Your task to perform on an android device: Open Android settings Image 0: 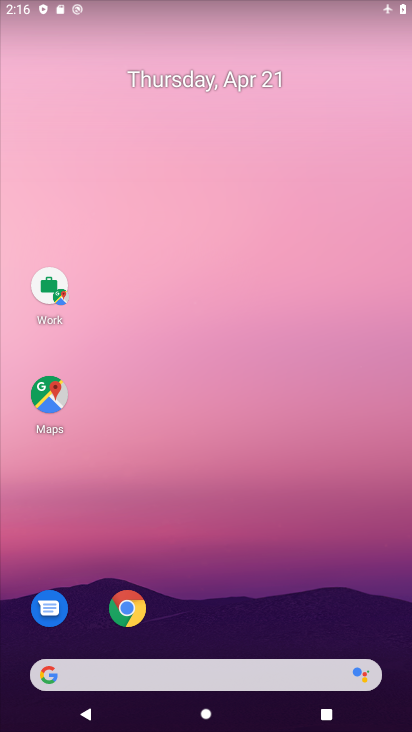
Step 0: drag from (199, 647) to (252, 298)
Your task to perform on an android device: Open Android settings Image 1: 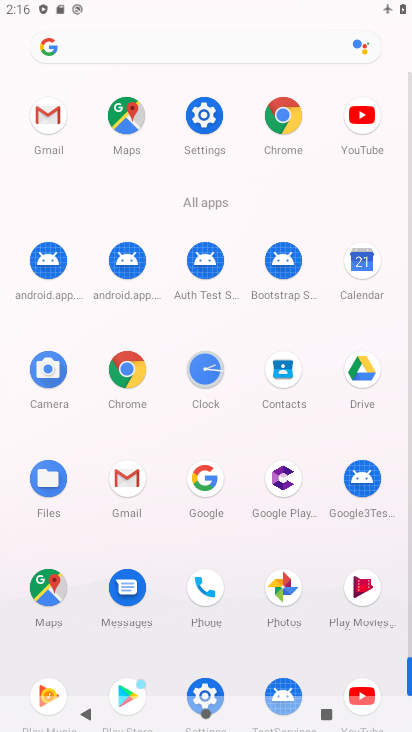
Step 1: click (208, 687)
Your task to perform on an android device: Open Android settings Image 2: 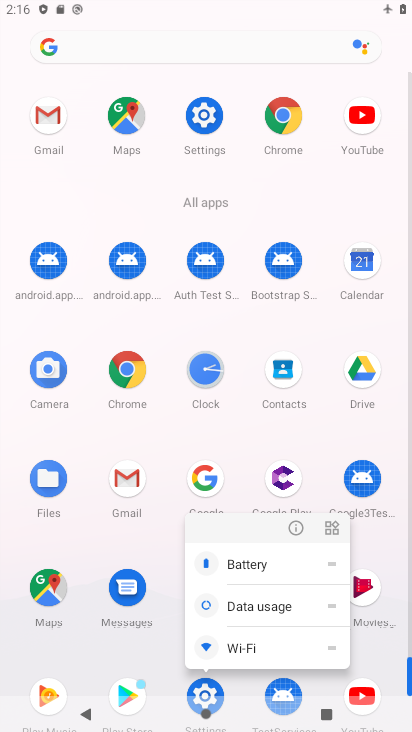
Step 2: click (208, 686)
Your task to perform on an android device: Open Android settings Image 3: 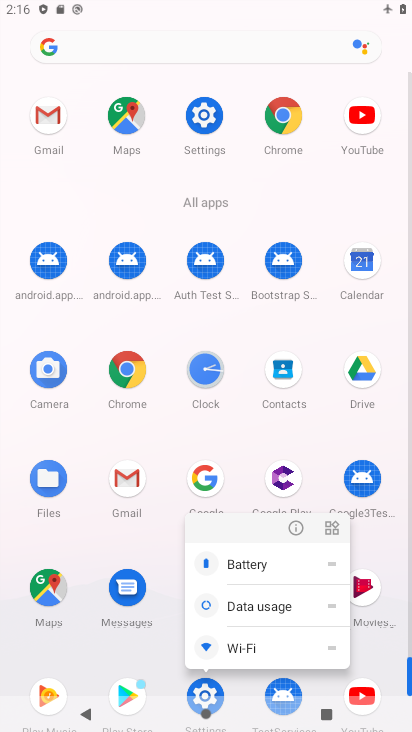
Step 3: click (196, 698)
Your task to perform on an android device: Open Android settings Image 4: 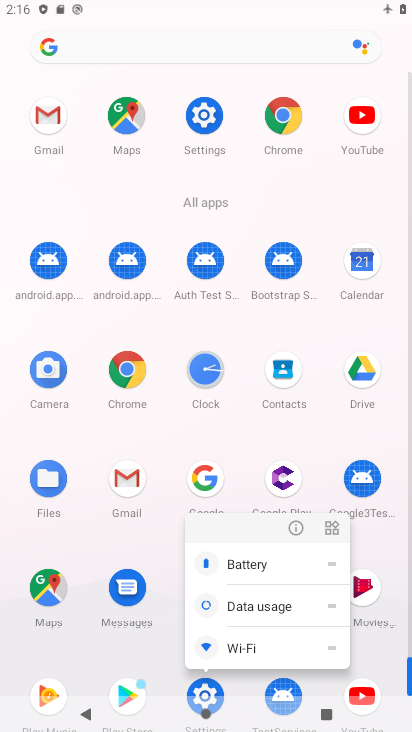
Step 4: click (204, 682)
Your task to perform on an android device: Open Android settings Image 5: 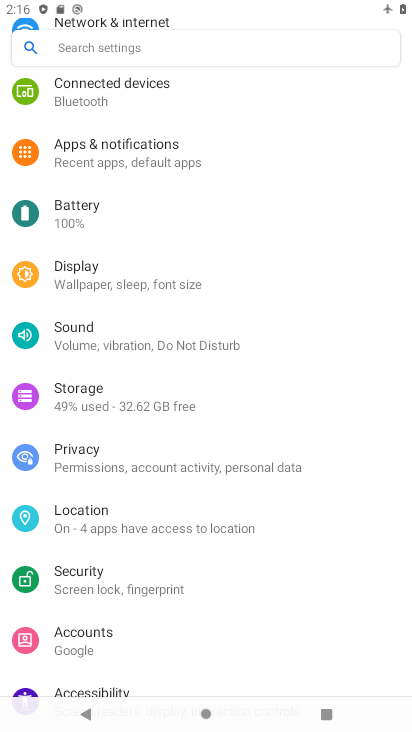
Step 5: drag from (151, 612) to (75, 255)
Your task to perform on an android device: Open Android settings Image 6: 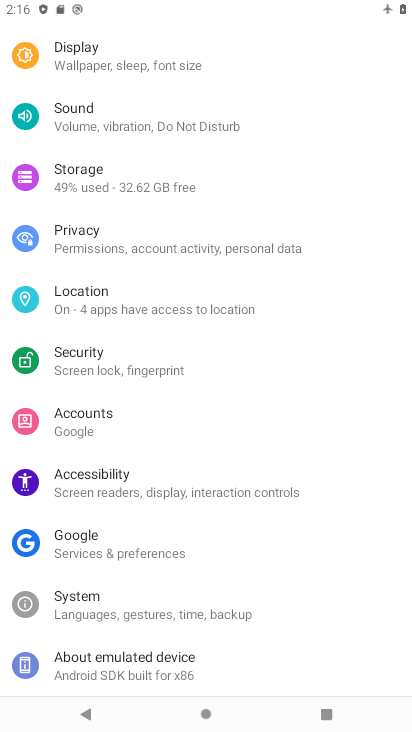
Step 6: click (105, 667)
Your task to perform on an android device: Open Android settings Image 7: 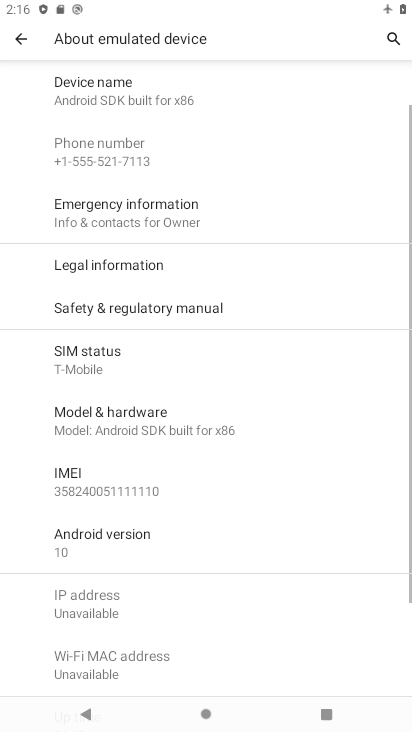
Step 7: click (123, 554)
Your task to perform on an android device: Open Android settings Image 8: 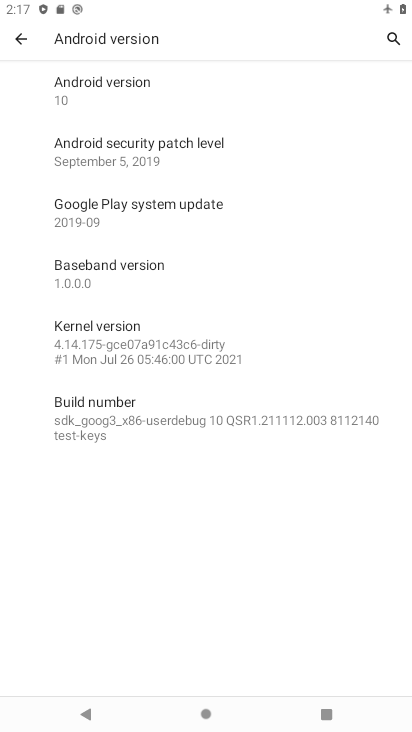
Step 8: task complete